Your task to perform on an android device: Open Amazon Image 0: 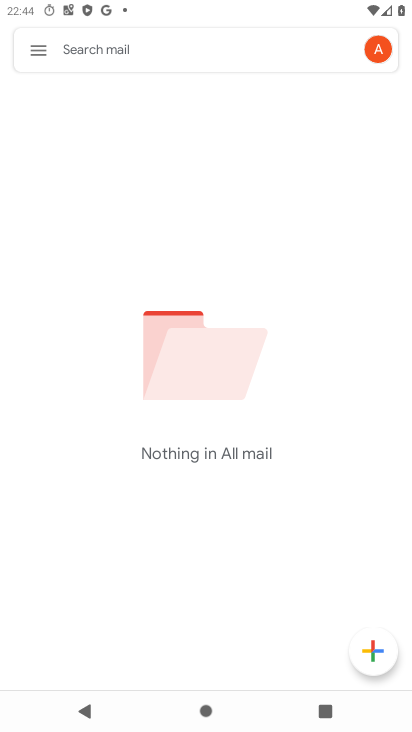
Step 0: press home button
Your task to perform on an android device: Open Amazon Image 1: 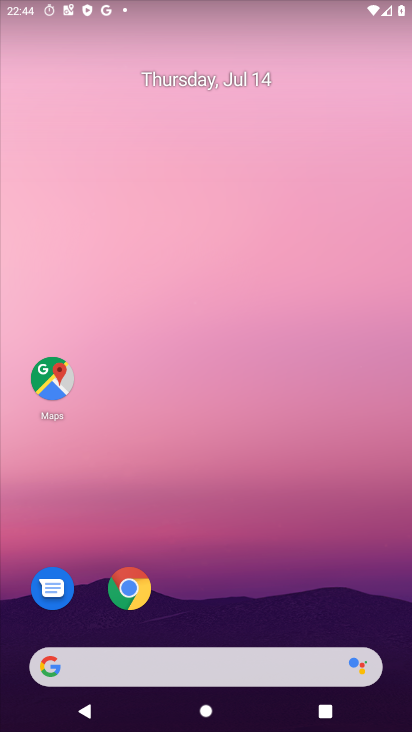
Step 1: click (128, 590)
Your task to perform on an android device: Open Amazon Image 2: 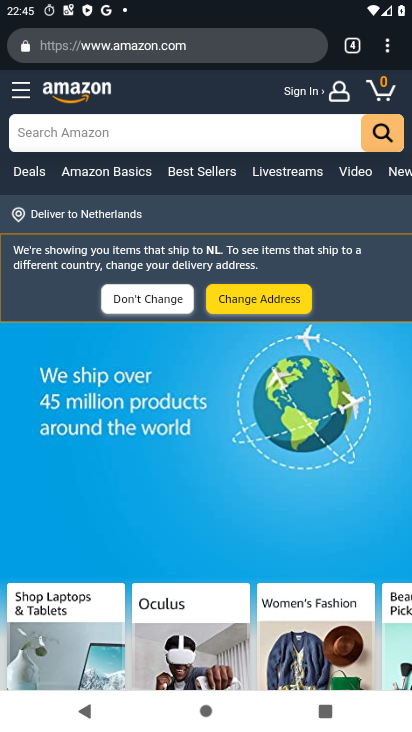
Step 2: task complete